Your task to perform on an android device: Do I have any events today? Image 0: 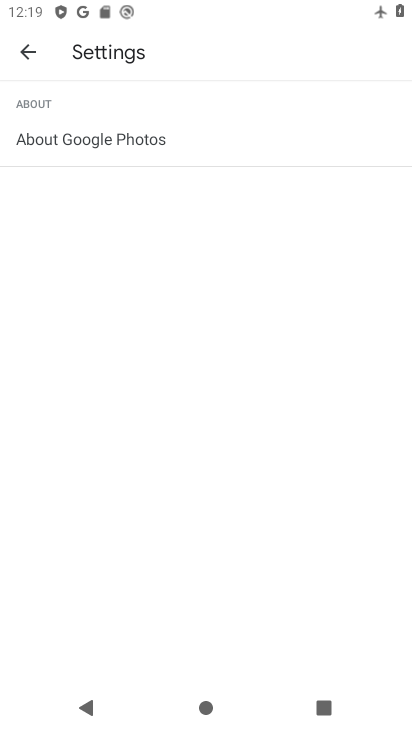
Step 0: press home button
Your task to perform on an android device: Do I have any events today? Image 1: 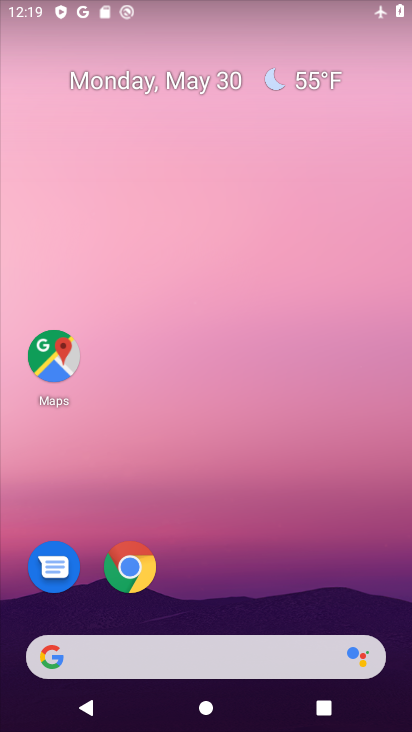
Step 1: drag from (240, 622) to (259, 49)
Your task to perform on an android device: Do I have any events today? Image 2: 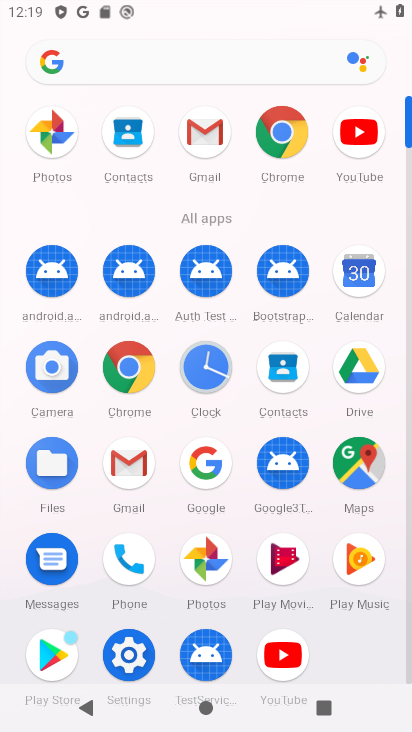
Step 2: click (356, 271)
Your task to perform on an android device: Do I have any events today? Image 3: 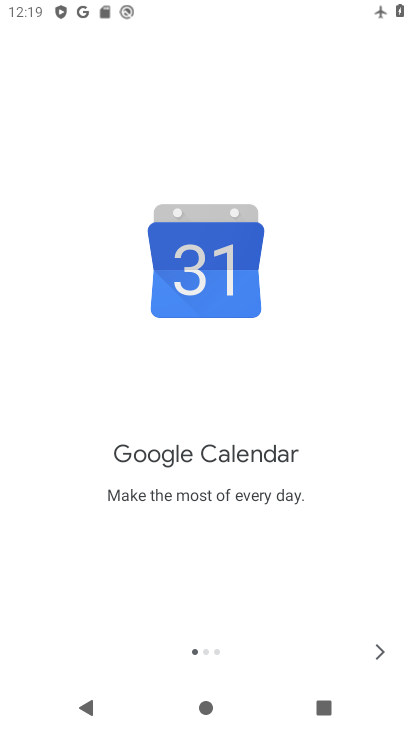
Step 3: click (377, 639)
Your task to perform on an android device: Do I have any events today? Image 4: 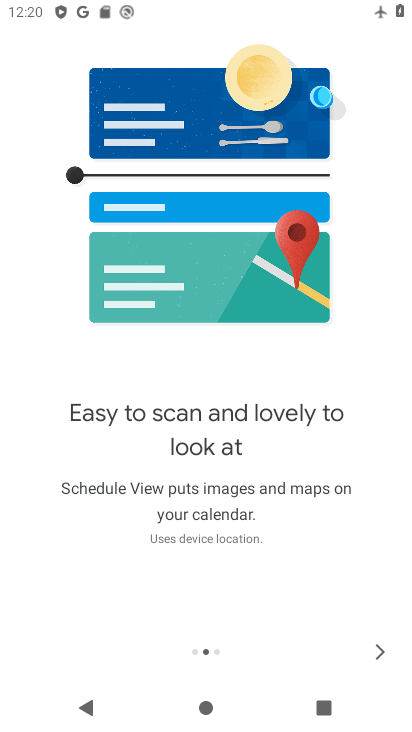
Step 4: click (382, 632)
Your task to perform on an android device: Do I have any events today? Image 5: 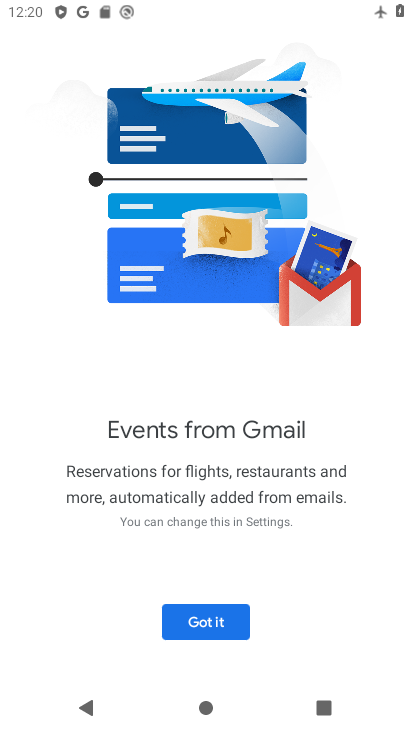
Step 5: click (205, 617)
Your task to perform on an android device: Do I have any events today? Image 6: 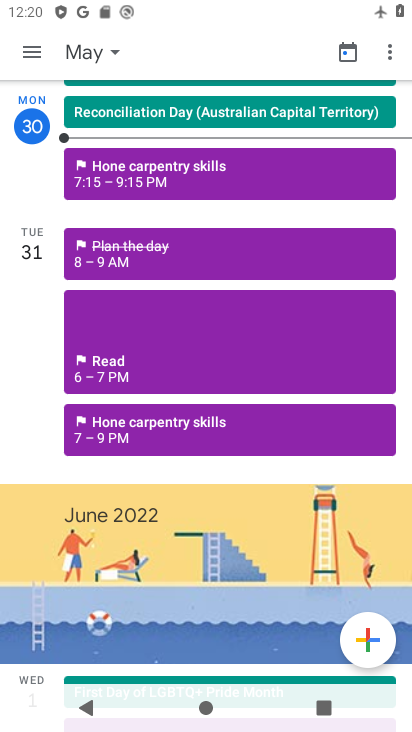
Step 6: click (31, 46)
Your task to perform on an android device: Do I have any events today? Image 7: 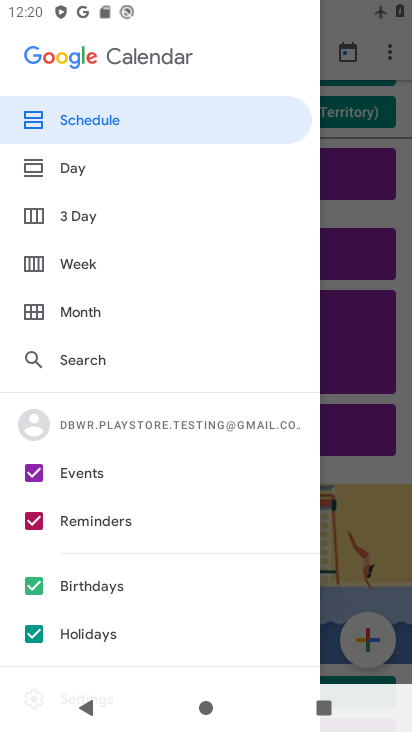
Step 7: click (29, 518)
Your task to perform on an android device: Do I have any events today? Image 8: 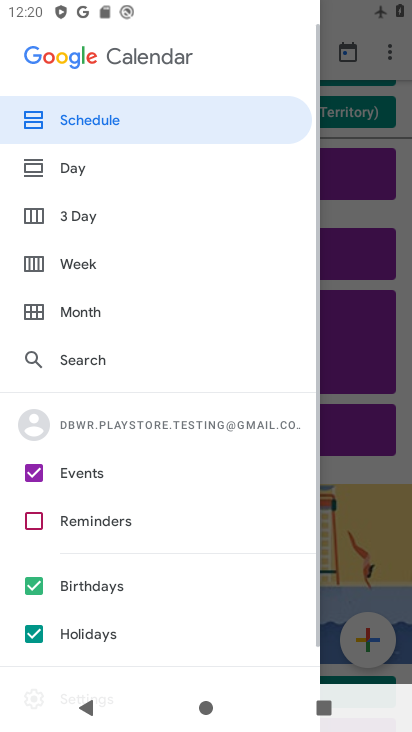
Step 8: click (35, 581)
Your task to perform on an android device: Do I have any events today? Image 9: 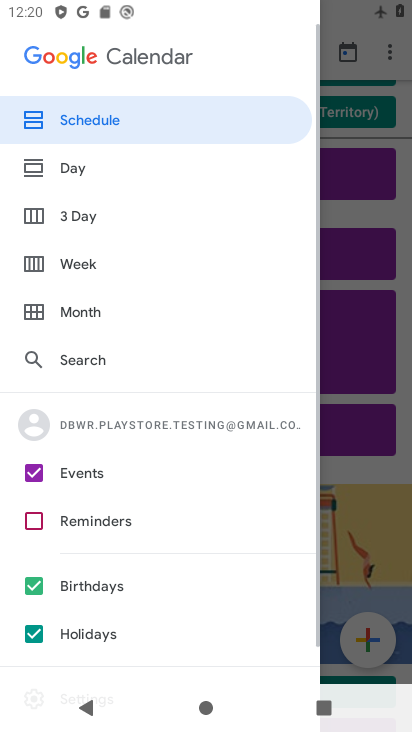
Step 9: click (39, 631)
Your task to perform on an android device: Do I have any events today? Image 10: 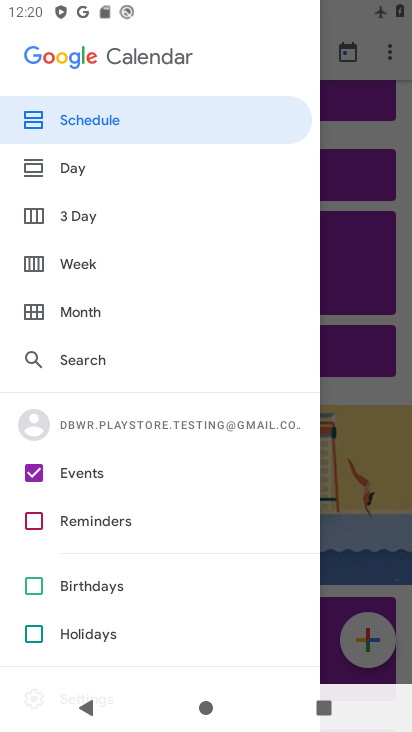
Step 10: click (78, 116)
Your task to perform on an android device: Do I have any events today? Image 11: 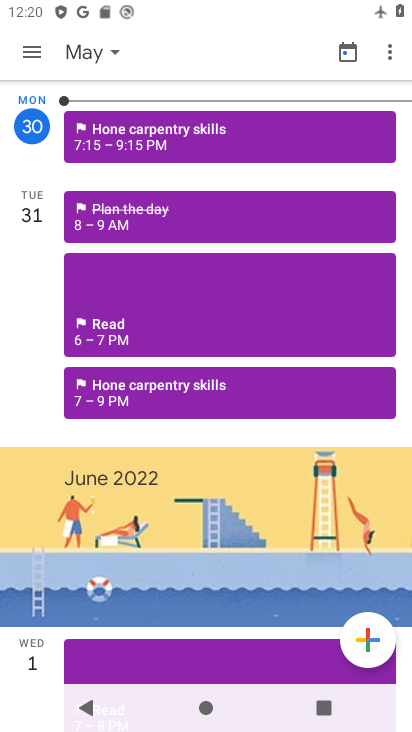
Step 11: click (34, 134)
Your task to perform on an android device: Do I have any events today? Image 12: 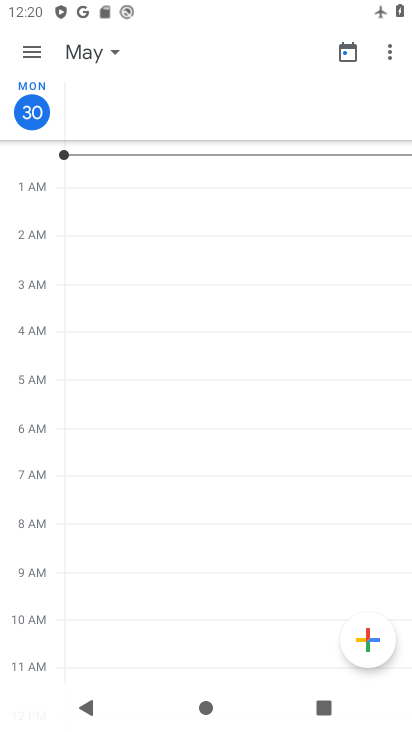
Step 12: task complete